Your task to perform on an android device: turn on notifications settings in the gmail app Image 0: 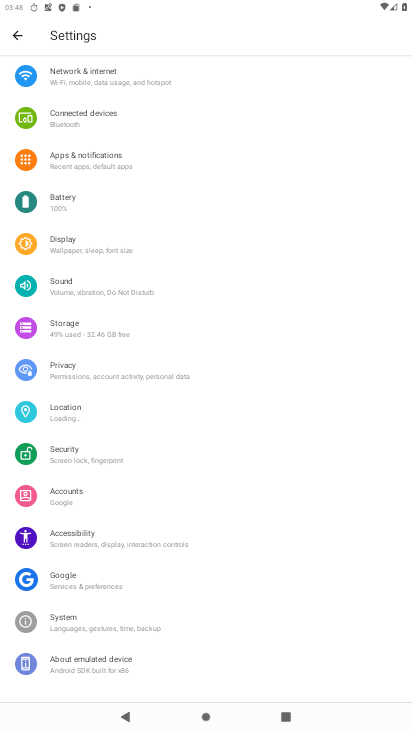
Step 0: press home button
Your task to perform on an android device: turn on notifications settings in the gmail app Image 1: 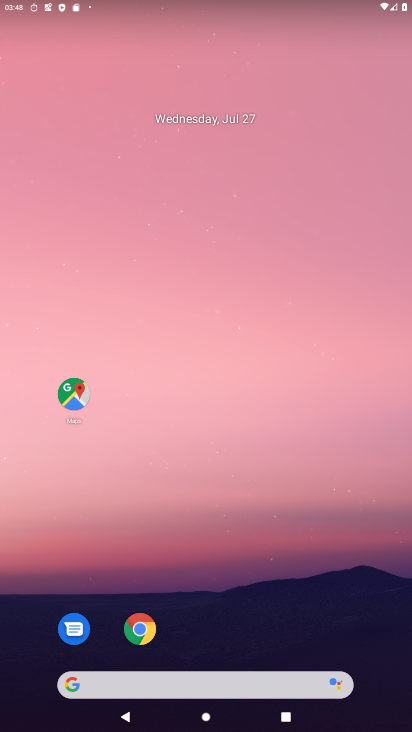
Step 1: drag from (274, 567) to (259, 72)
Your task to perform on an android device: turn on notifications settings in the gmail app Image 2: 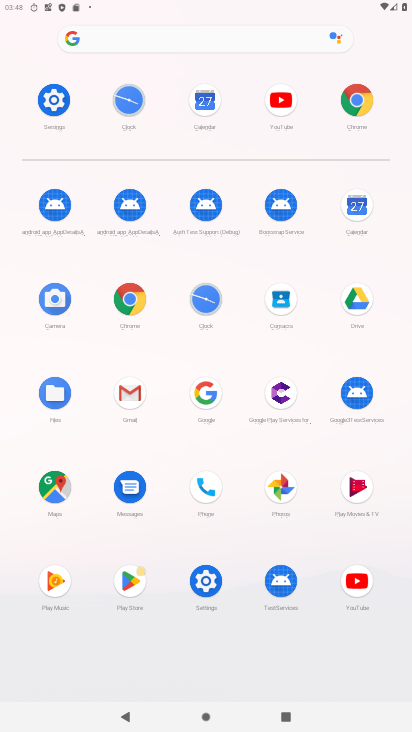
Step 2: click (135, 386)
Your task to perform on an android device: turn on notifications settings in the gmail app Image 3: 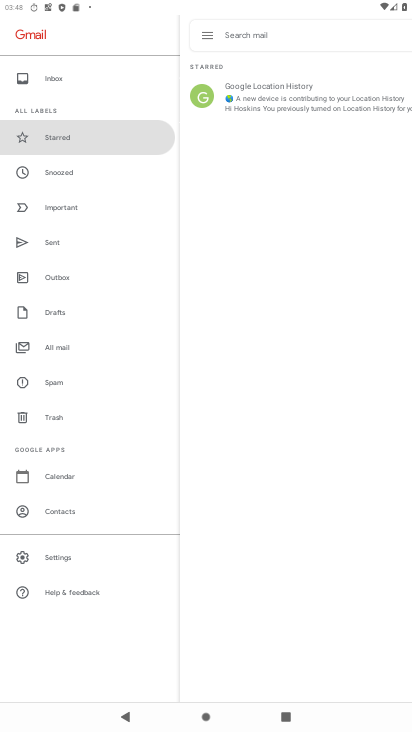
Step 3: click (66, 558)
Your task to perform on an android device: turn on notifications settings in the gmail app Image 4: 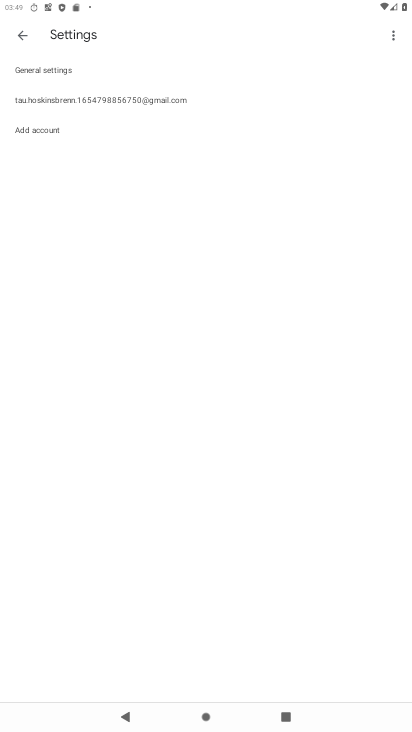
Step 4: click (112, 94)
Your task to perform on an android device: turn on notifications settings in the gmail app Image 5: 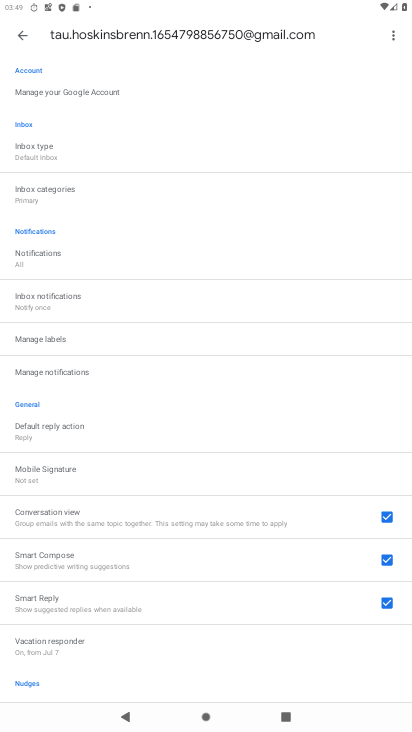
Step 5: click (72, 368)
Your task to perform on an android device: turn on notifications settings in the gmail app Image 6: 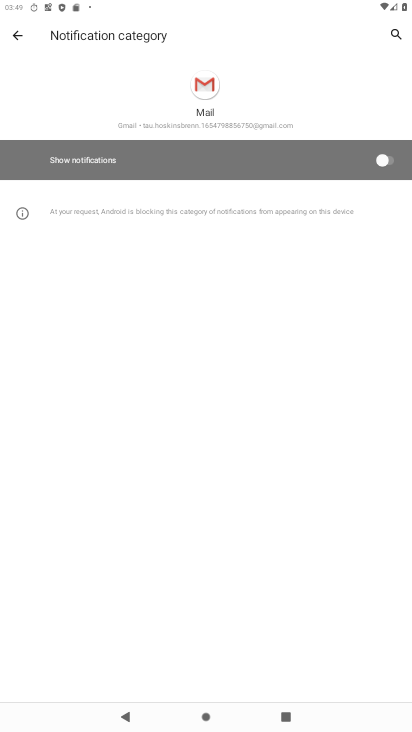
Step 6: click (338, 159)
Your task to perform on an android device: turn on notifications settings in the gmail app Image 7: 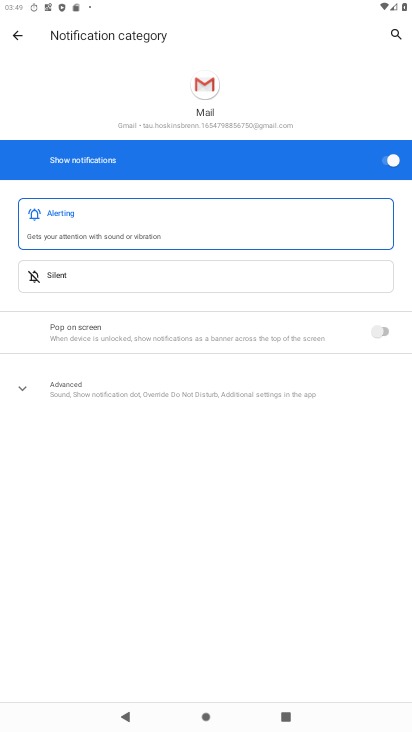
Step 7: task complete